Your task to perform on an android device: What is the news today? Image 0: 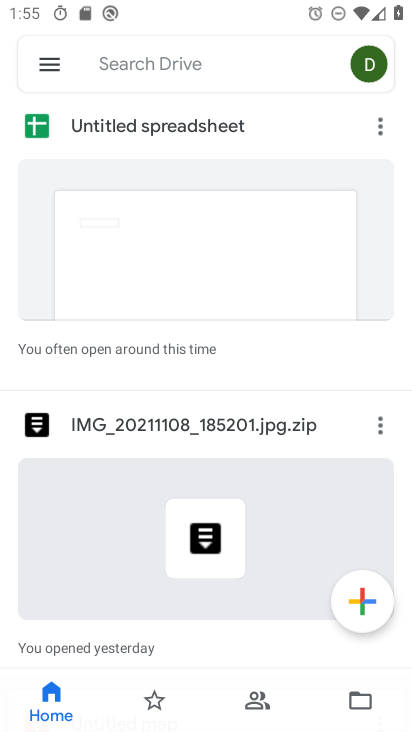
Step 0: press home button
Your task to perform on an android device: What is the news today? Image 1: 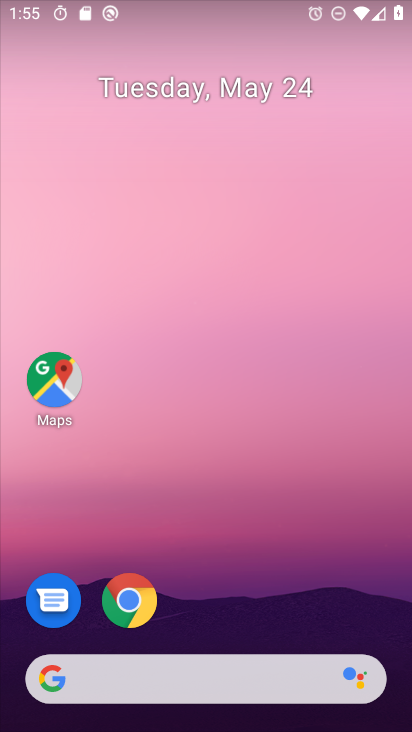
Step 1: click (132, 597)
Your task to perform on an android device: What is the news today? Image 2: 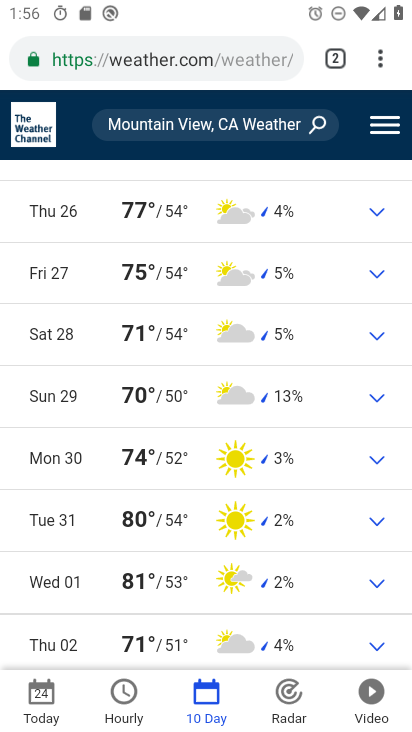
Step 2: click (170, 66)
Your task to perform on an android device: What is the news today? Image 3: 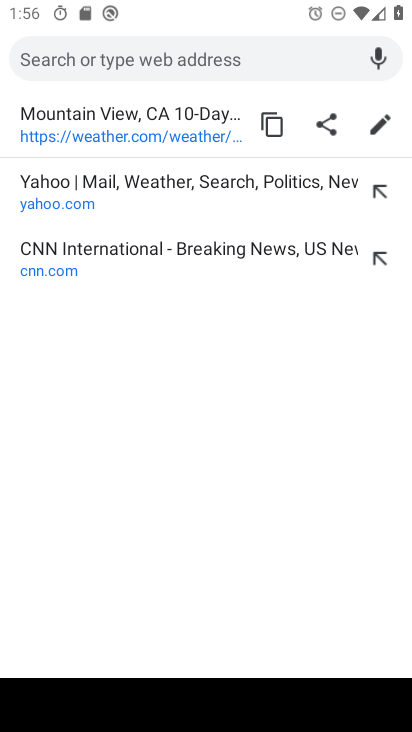
Step 3: type "news"
Your task to perform on an android device: What is the news today? Image 4: 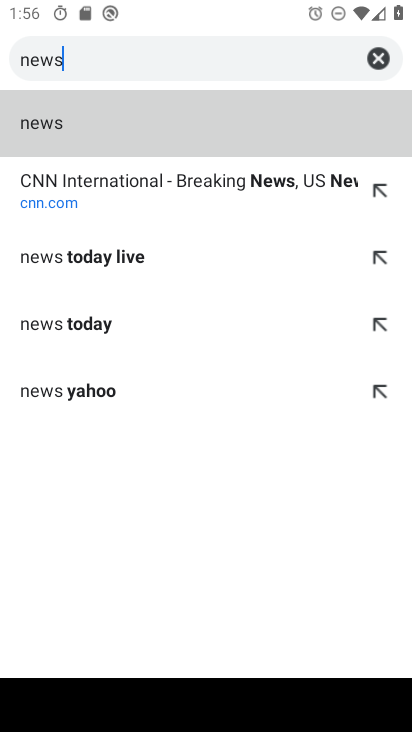
Step 4: click (42, 122)
Your task to perform on an android device: What is the news today? Image 5: 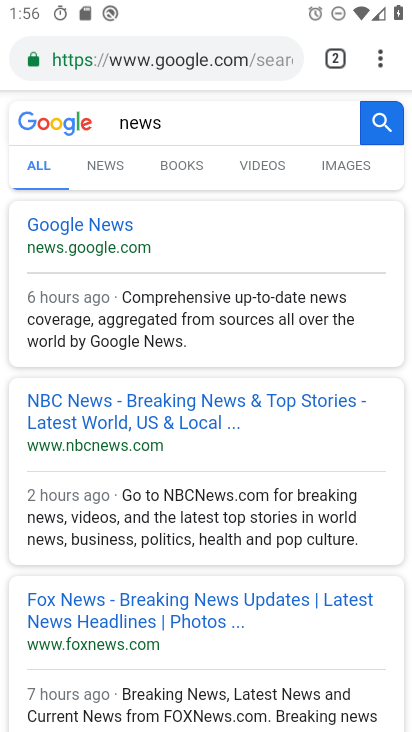
Step 5: click (117, 158)
Your task to perform on an android device: What is the news today? Image 6: 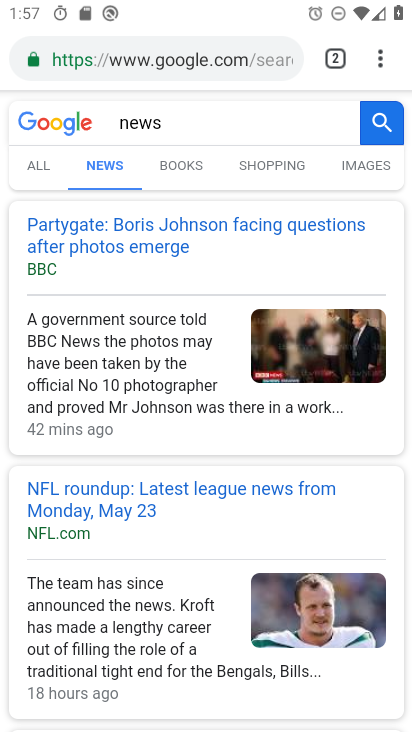
Step 6: task complete